Your task to perform on an android device: Open the map Image 0: 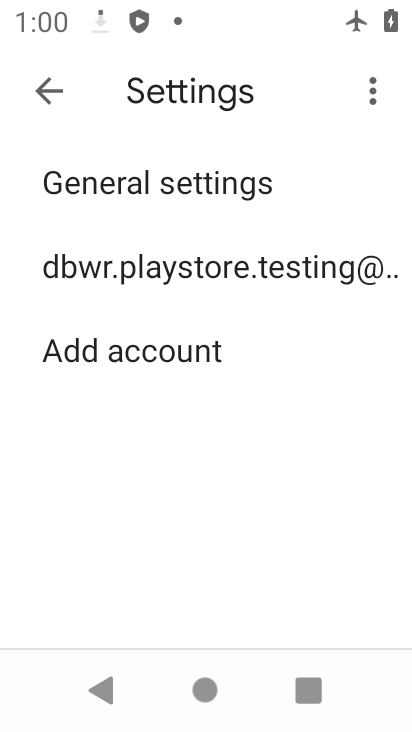
Step 0: press home button
Your task to perform on an android device: Open the map Image 1: 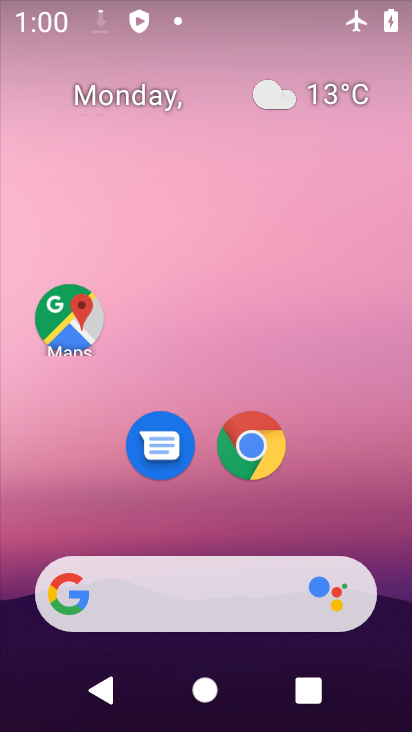
Step 1: click (60, 315)
Your task to perform on an android device: Open the map Image 2: 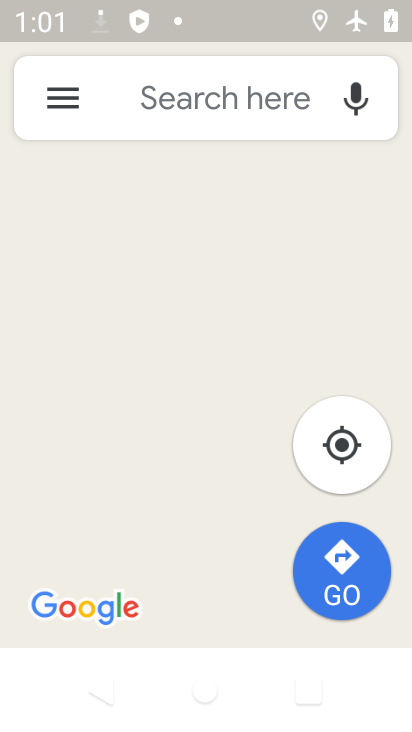
Step 2: task complete